Your task to perform on an android device: What's on my calendar today? Image 0: 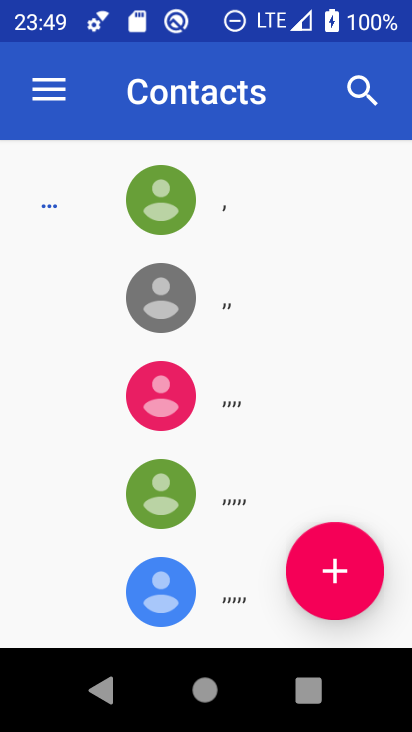
Step 0: press home button
Your task to perform on an android device: What's on my calendar today? Image 1: 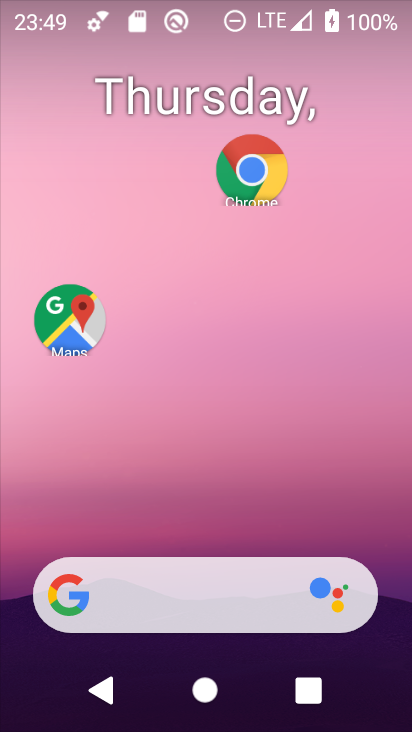
Step 1: drag from (148, 552) to (154, 213)
Your task to perform on an android device: What's on my calendar today? Image 2: 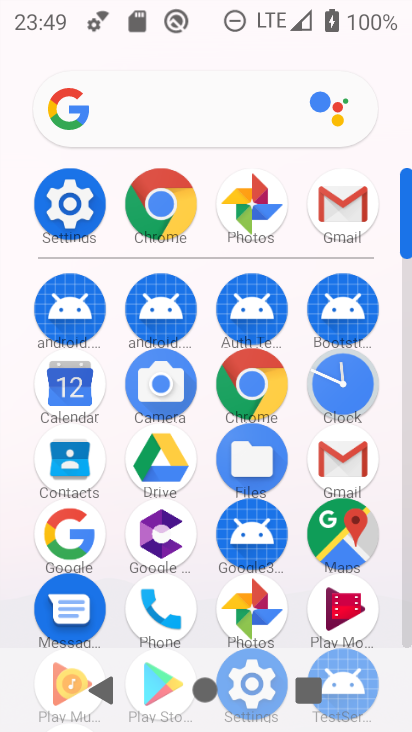
Step 2: click (84, 382)
Your task to perform on an android device: What's on my calendar today? Image 3: 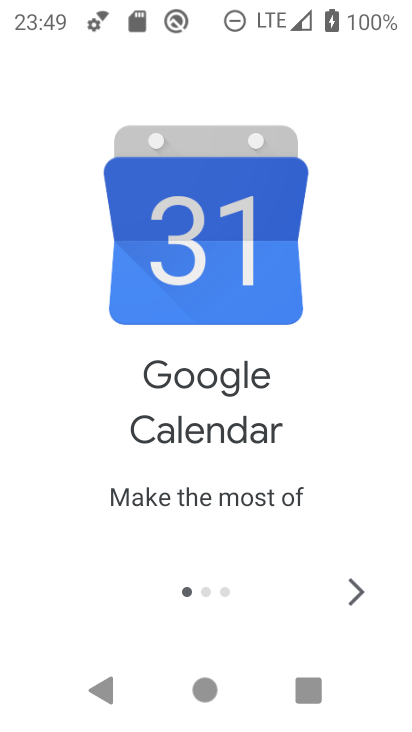
Step 3: click (361, 589)
Your task to perform on an android device: What's on my calendar today? Image 4: 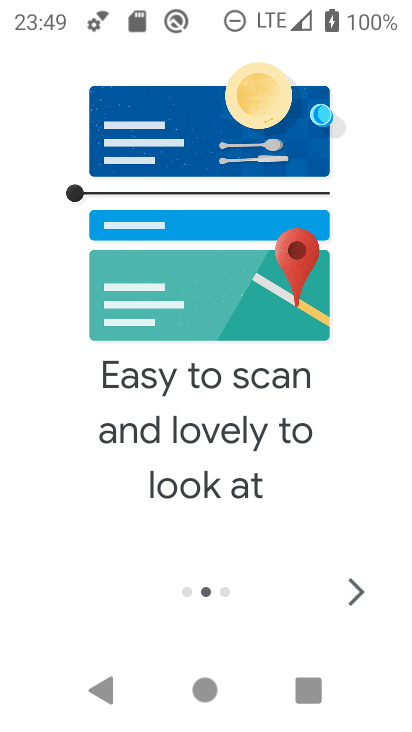
Step 4: click (361, 589)
Your task to perform on an android device: What's on my calendar today? Image 5: 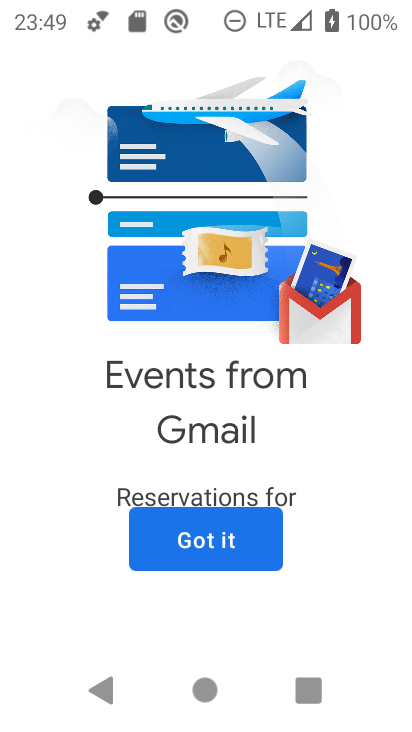
Step 5: click (212, 534)
Your task to perform on an android device: What's on my calendar today? Image 6: 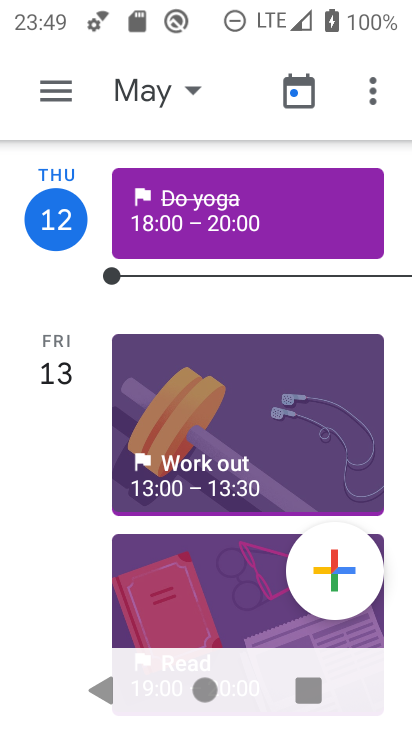
Step 6: click (227, 229)
Your task to perform on an android device: What's on my calendar today? Image 7: 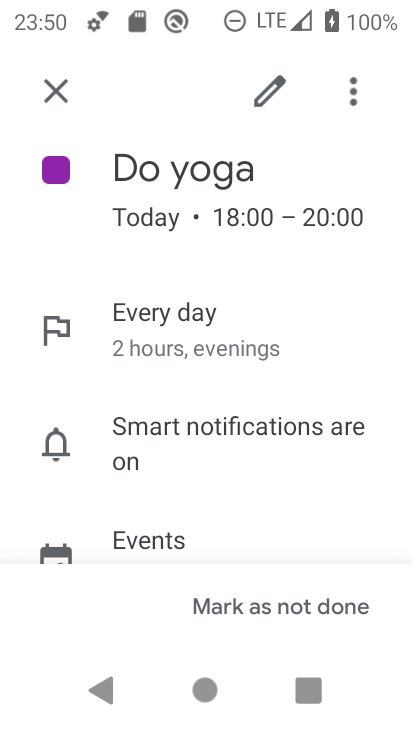
Step 7: task complete